Your task to perform on an android device: Go to location settings Image 0: 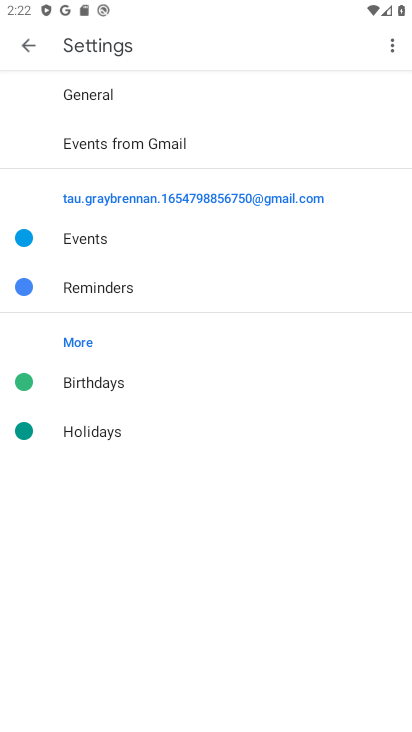
Step 0: drag from (358, 602) to (316, 245)
Your task to perform on an android device: Go to location settings Image 1: 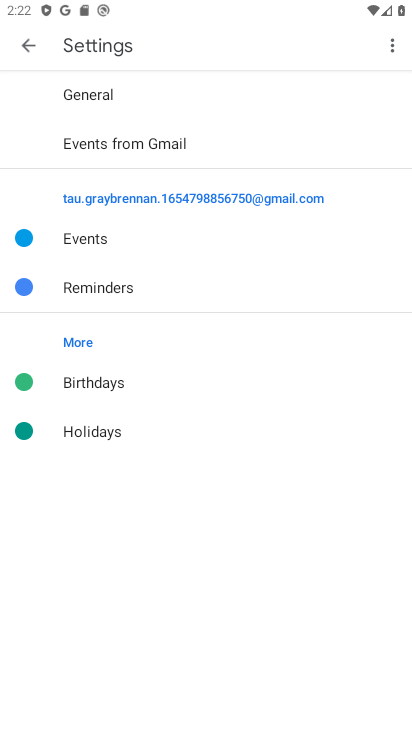
Step 1: press back button
Your task to perform on an android device: Go to location settings Image 2: 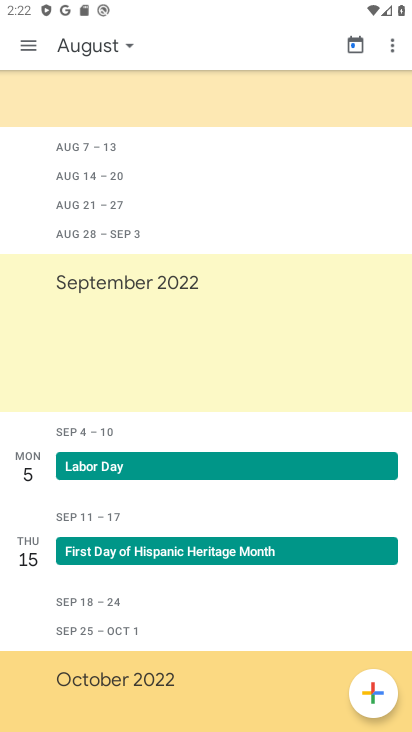
Step 2: press back button
Your task to perform on an android device: Go to location settings Image 3: 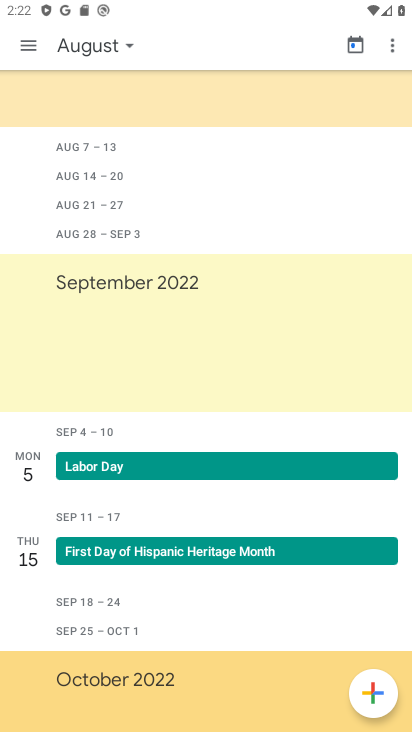
Step 3: press back button
Your task to perform on an android device: Go to location settings Image 4: 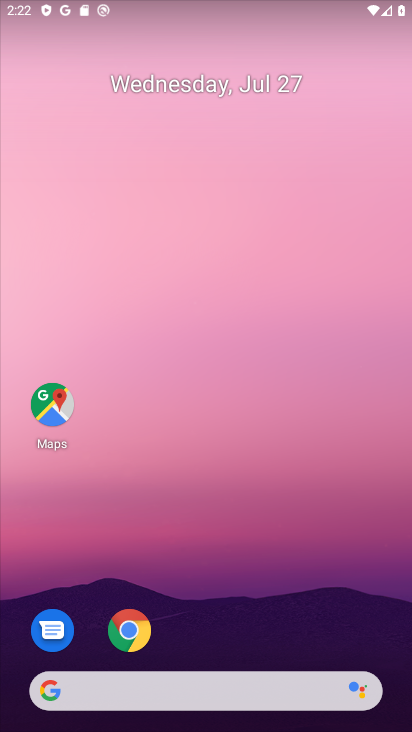
Step 4: click (192, 92)
Your task to perform on an android device: Go to location settings Image 5: 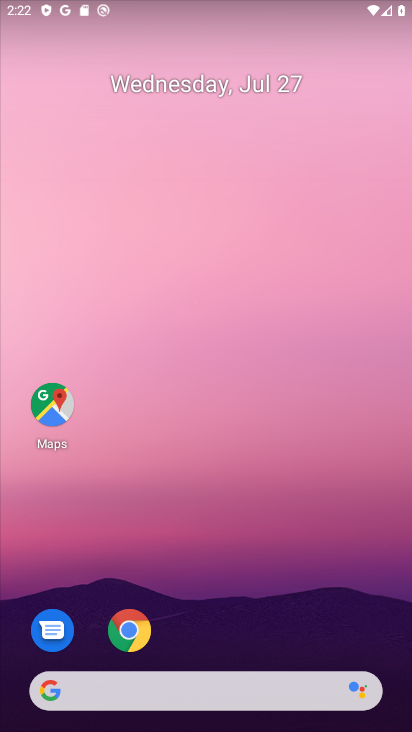
Step 5: drag from (201, 463) to (153, 171)
Your task to perform on an android device: Go to location settings Image 6: 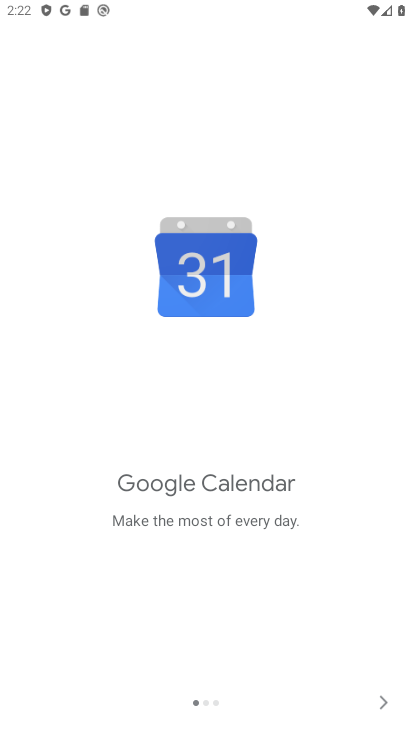
Step 6: drag from (222, 448) to (192, 168)
Your task to perform on an android device: Go to location settings Image 7: 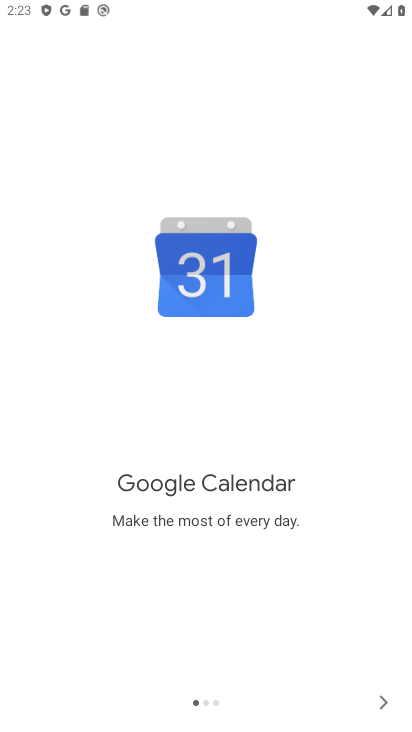
Step 7: press home button
Your task to perform on an android device: Go to location settings Image 8: 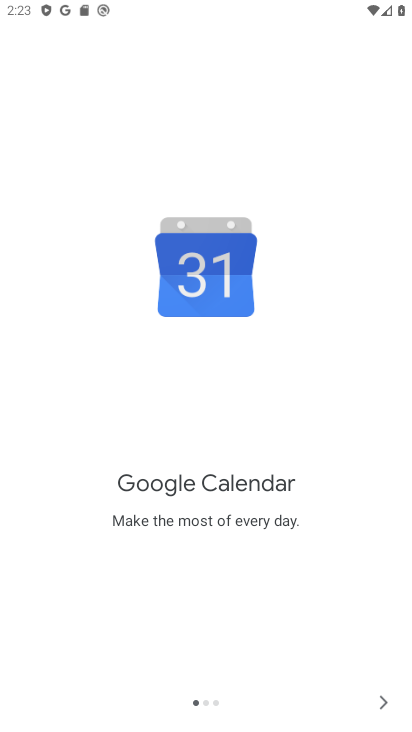
Step 8: press home button
Your task to perform on an android device: Go to location settings Image 9: 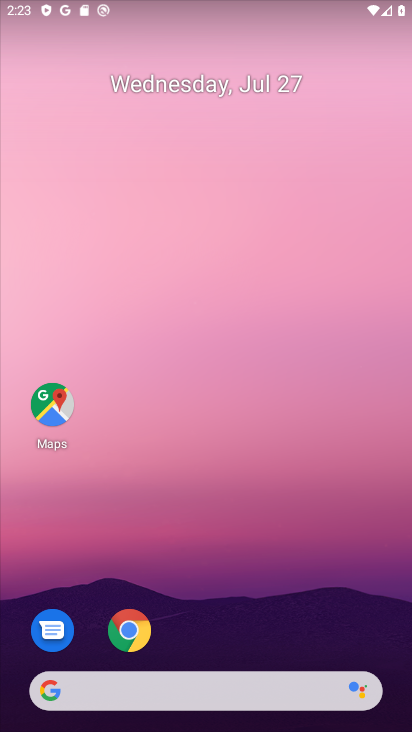
Step 9: drag from (274, 677) to (204, 85)
Your task to perform on an android device: Go to location settings Image 10: 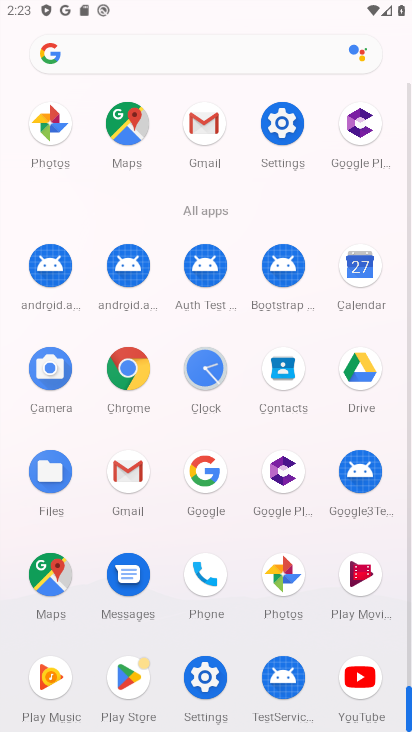
Step 10: click (284, 126)
Your task to perform on an android device: Go to location settings Image 11: 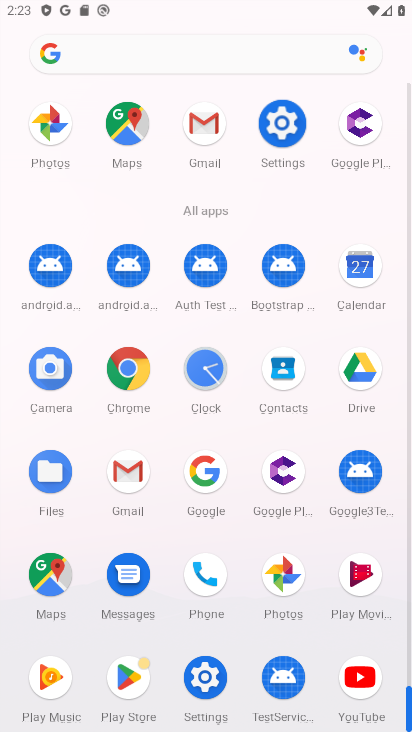
Step 11: click (284, 128)
Your task to perform on an android device: Go to location settings Image 12: 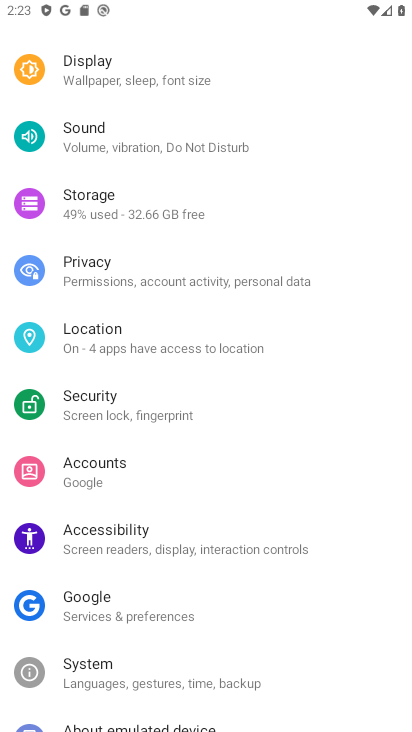
Step 12: click (85, 340)
Your task to perform on an android device: Go to location settings Image 13: 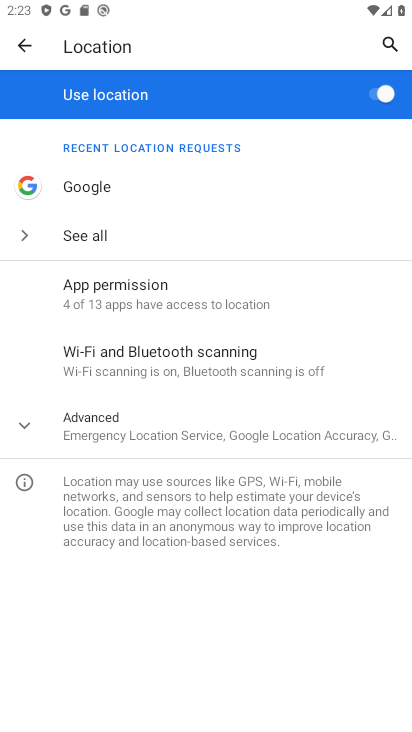
Step 13: task complete